Your task to perform on an android device: Set the phone to "Do not disturb". Image 0: 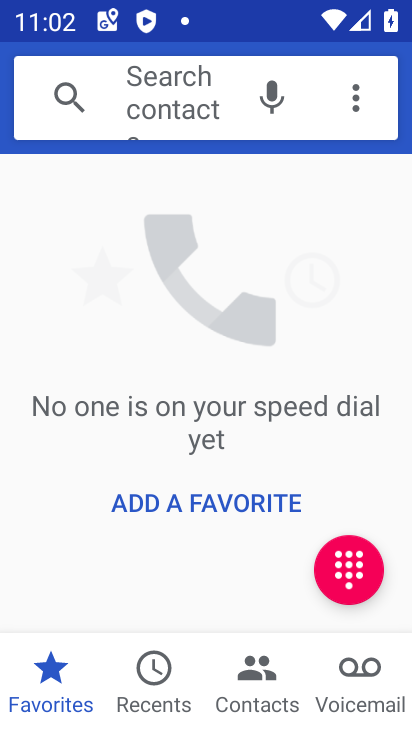
Step 0: press home button
Your task to perform on an android device: Set the phone to "Do not disturb". Image 1: 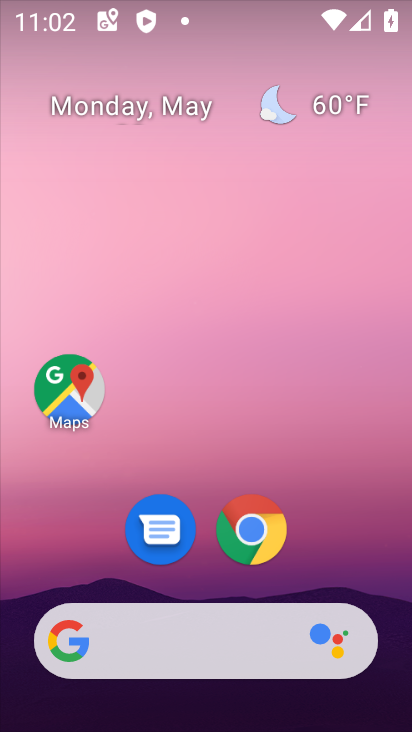
Step 1: drag from (192, 449) to (82, 37)
Your task to perform on an android device: Set the phone to "Do not disturb". Image 2: 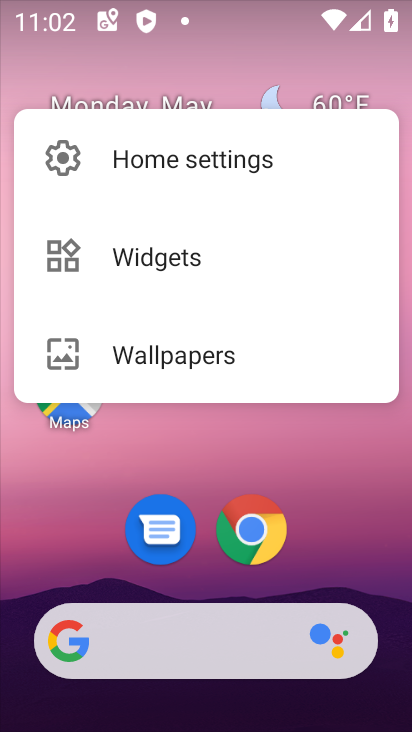
Step 2: click (271, 436)
Your task to perform on an android device: Set the phone to "Do not disturb". Image 3: 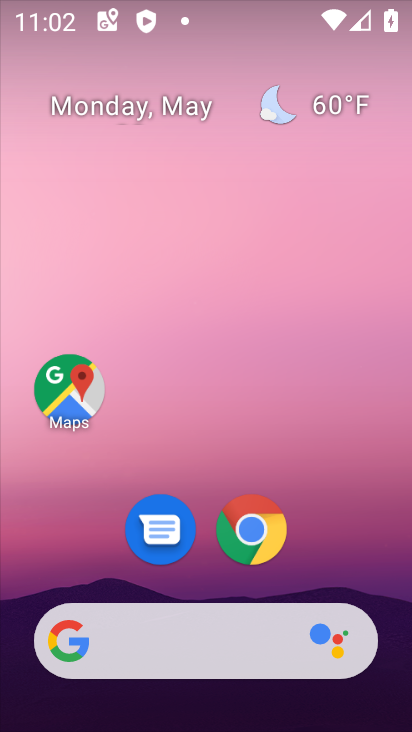
Step 3: drag from (340, 536) to (244, 18)
Your task to perform on an android device: Set the phone to "Do not disturb". Image 4: 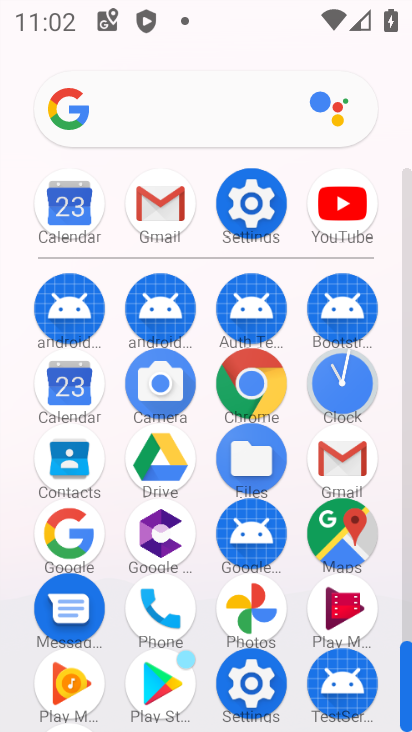
Step 4: click (247, 200)
Your task to perform on an android device: Set the phone to "Do not disturb". Image 5: 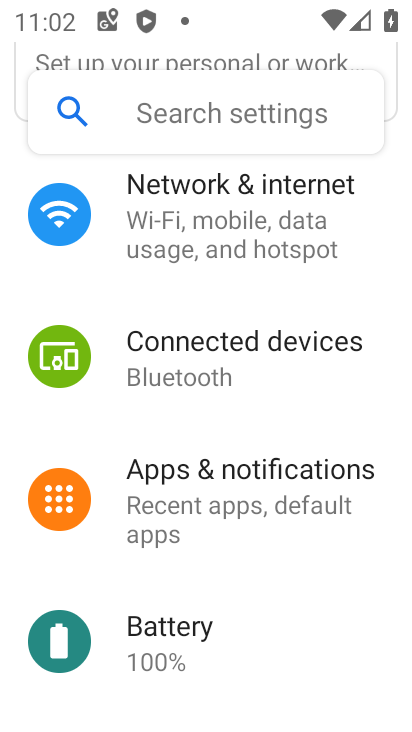
Step 5: drag from (256, 374) to (224, 285)
Your task to perform on an android device: Set the phone to "Do not disturb". Image 6: 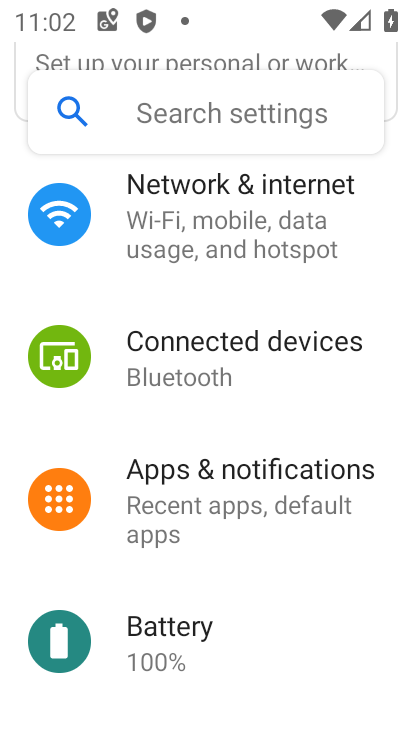
Step 6: drag from (225, 462) to (201, 300)
Your task to perform on an android device: Set the phone to "Do not disturb". Image 7: 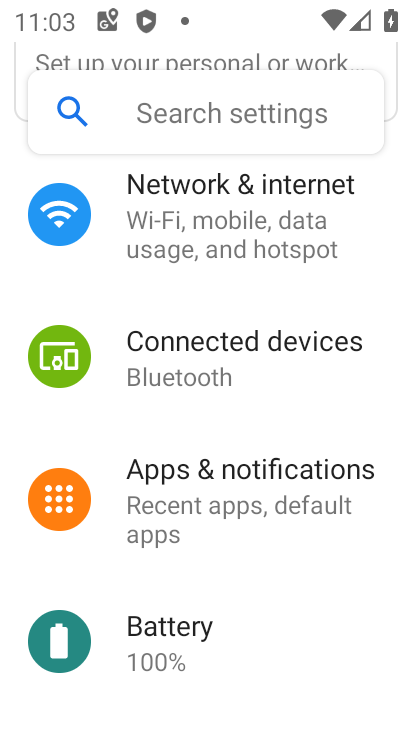
Step 7: drag from (194, 582) to (180, 316)
Your task to perform on an android device: Set the phone to "Do not disturb". Image 8: 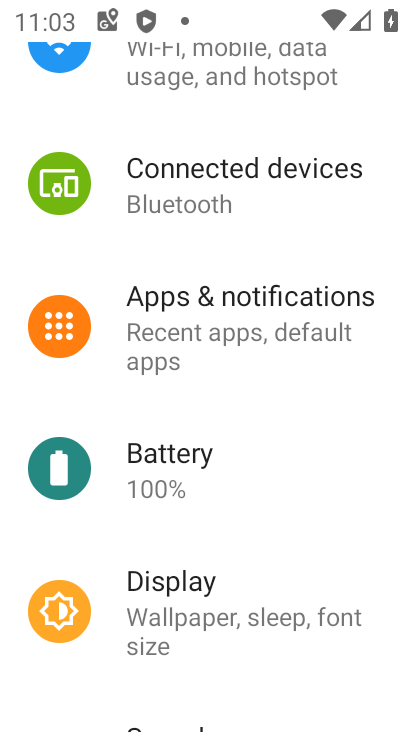
Step 8: drag from (186, 524) to (156, 263)
Your task to perform on an android device: Set the phone to "Do not disturb". Image 9: 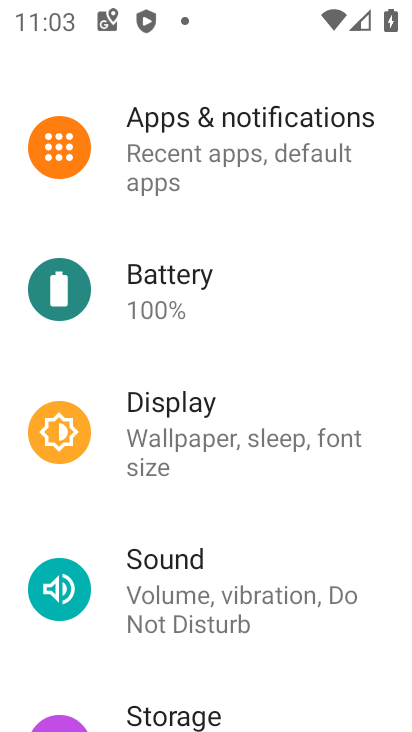
Step 9: click (167, 560)
Your task to perform on an android device: Set the phone to "Do not disturb". Image 10: 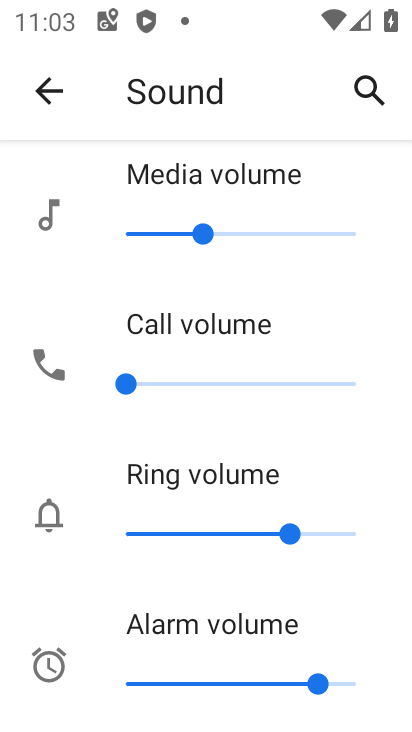
Step 10: drag from (193, 557) to (154, 124)
Your task to perform on an android device: Set the phone to "Do not disturb". Image 11: 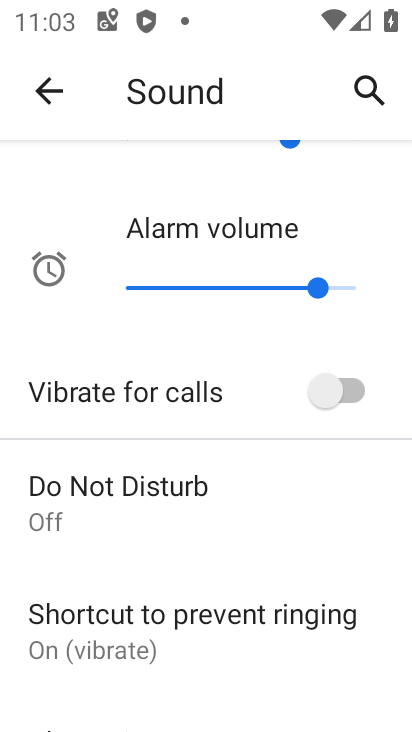
Step 11: click (75, 487)
Your task to perform on an android device: Set the phone to "Do not disturb". Image 12: 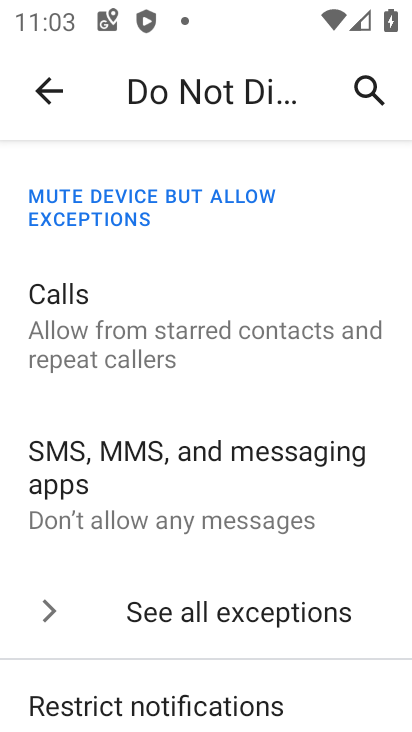
Step 12: drag from (217, 539) to (189, 164)
Your task to perform on an android device: Set the phone to "Do not disturb". Image 13: 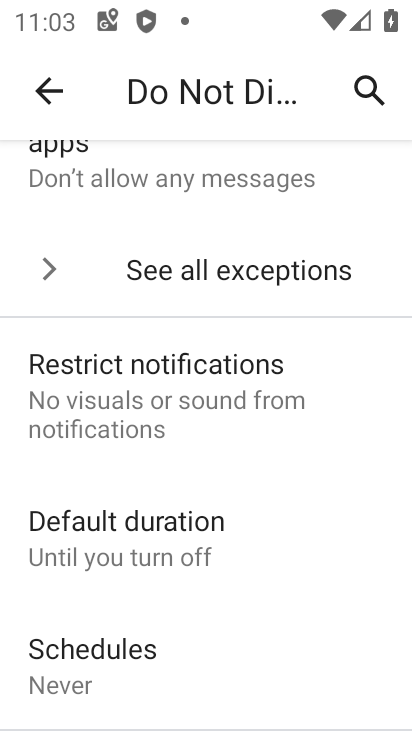
Step 13: drag from (185, 617) to (105, 257)
Your task to perform on an android device: Set the phone to "Do not disturb". Image 14: 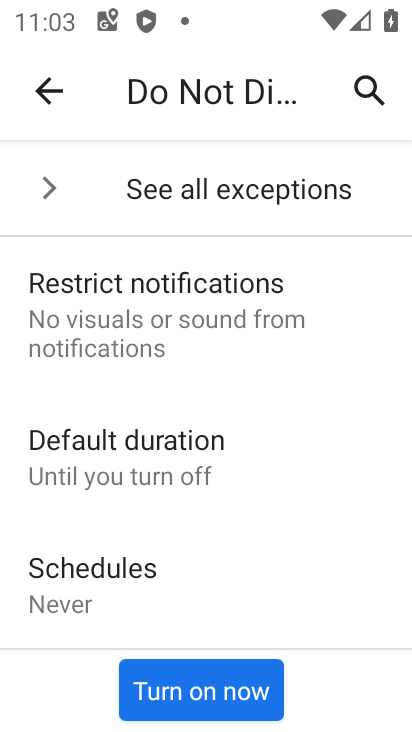
Step 14: click (196, 691)
Your task to perform on an android device: Set the phone to "Do not disturb". Image 15: 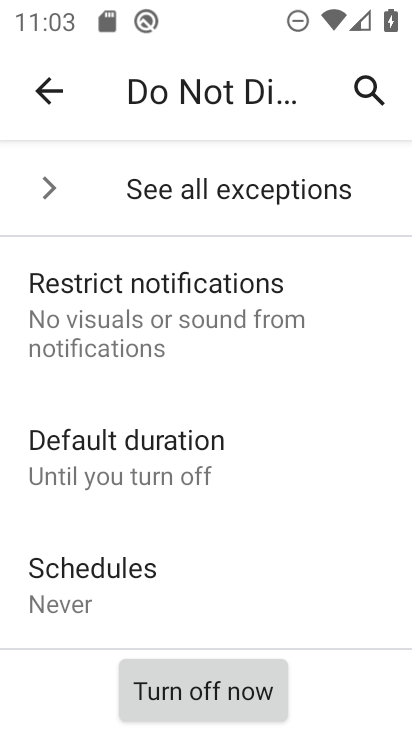
Step 15: task complete